Your task to perform on an android device: Set the phone to "Do not disturb". Image 0: 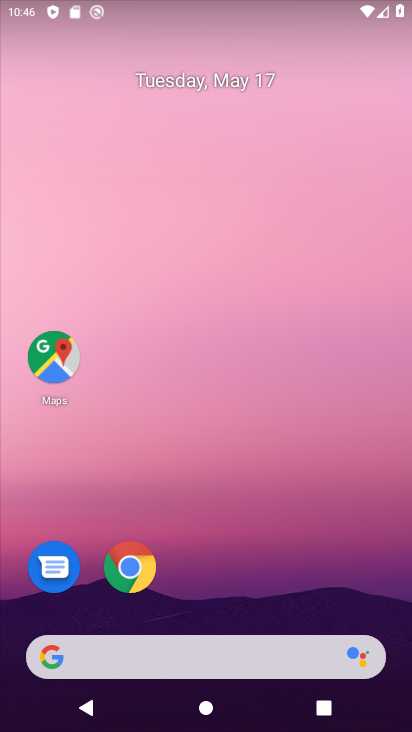
Step 0: drag from (153, 58) to (170, 422)
Your task to perform on an android device: Set the phone to "Do not disturb". Image 1: 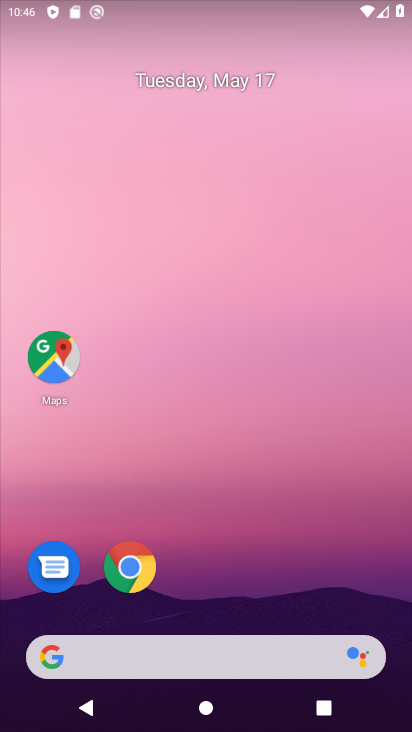
Step 1: drag from (172, 0) to (190, 470)
Your task to perform on an android device: Set the phone to "Do not disturb". Image 2: 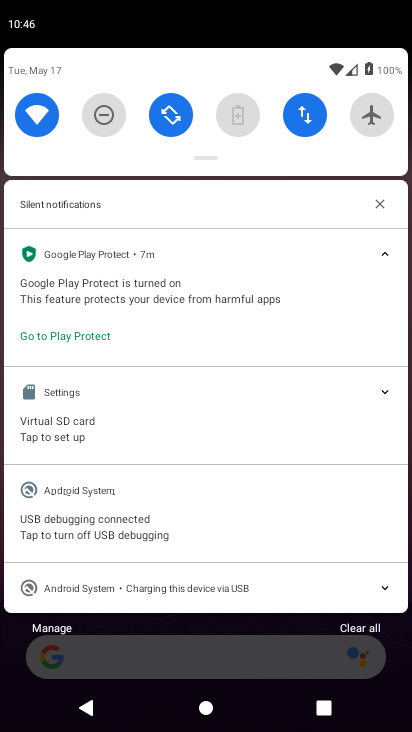
Step 2: click (104, 104)
Your task to perform on an android device: Set the phone to "Do not disturb". Image 3: 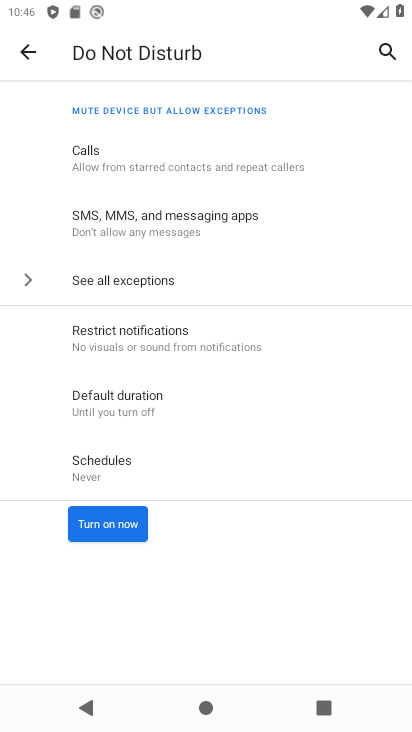
Step 3: click (86, 535)
Your task to perform on an android device: Set the phone to "Do not disturb". Image 4: 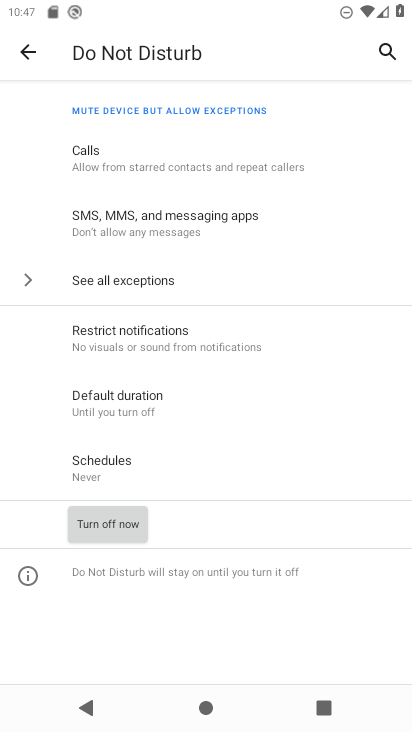
Step 4: task complete